Your task to perform on an android device: toggle improve location accuracy Image 0: 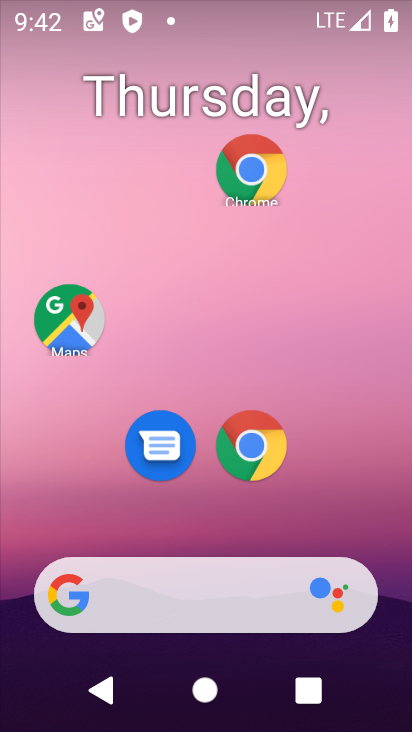
Step 0: drag from (220, 569) to (14, 179)
Your task to perform on an android device: toggle improve location accuracy Image 1: 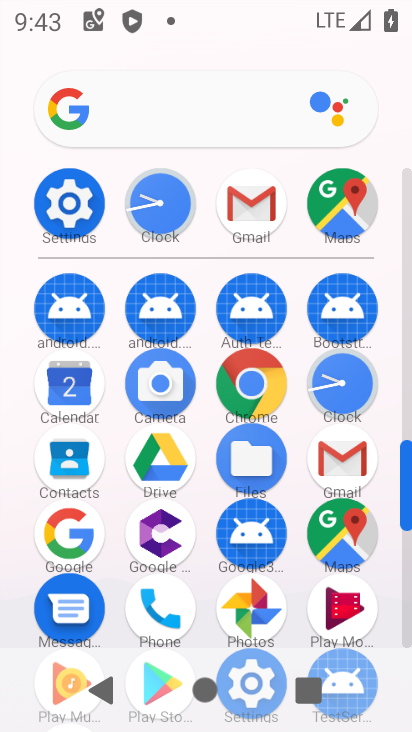
Step 1: click (243, 658)
Your task to perform on an android device: toggle improve location accuracy Image 2: 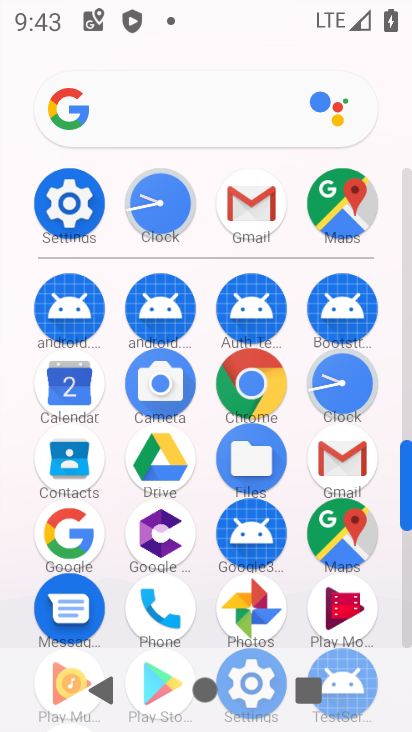
Step 2: click (67, 207)
Your task to perform on an android device: toggle improve location accuracy Image 3: 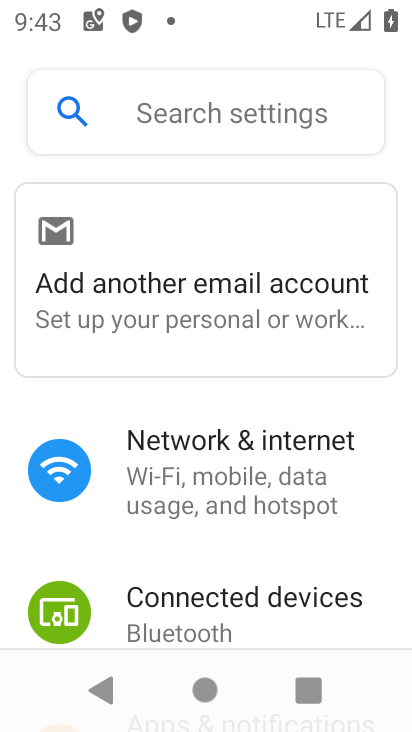
Step 3: drag from (157, 601) to (185, 11)
Your task to perform on an android device: toggle improve location accuracy Image 4: 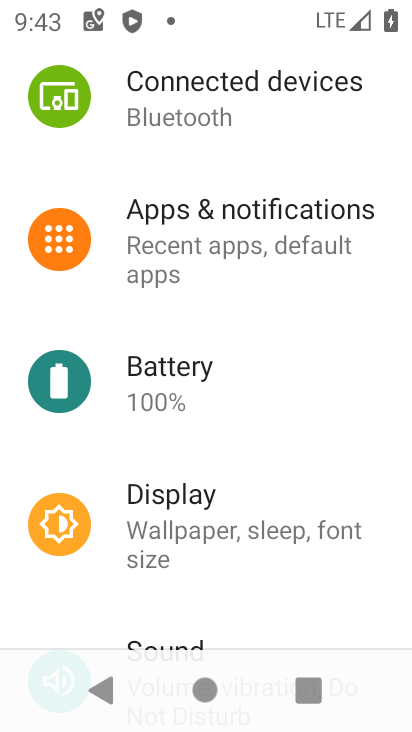
Step 4: drag from (268, 549) to (242, 107)
Your task to perform on an android device: toggle improve location accuracy Image 5: 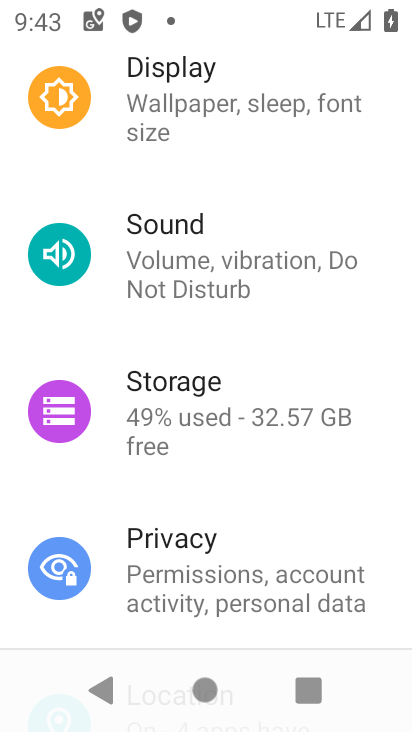
Step 5: drag from (212, 503) to (196, 48)
Your task to perform on an android device: toggle improve location accuracy Image 6: 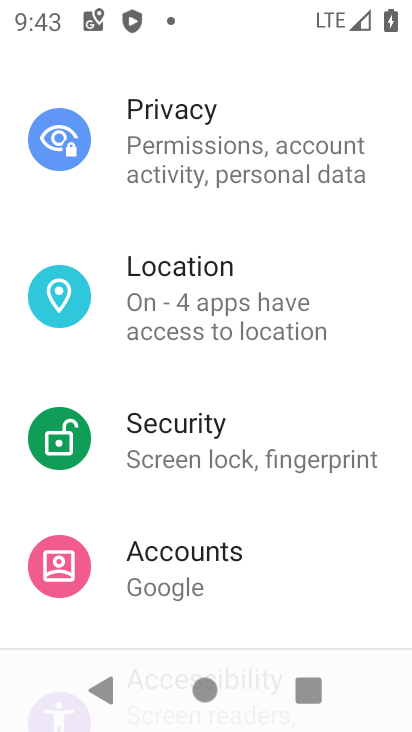
Step 6: click (207, 309)
Your task to perform on an android device: toggle improve location accuracy Image 7: 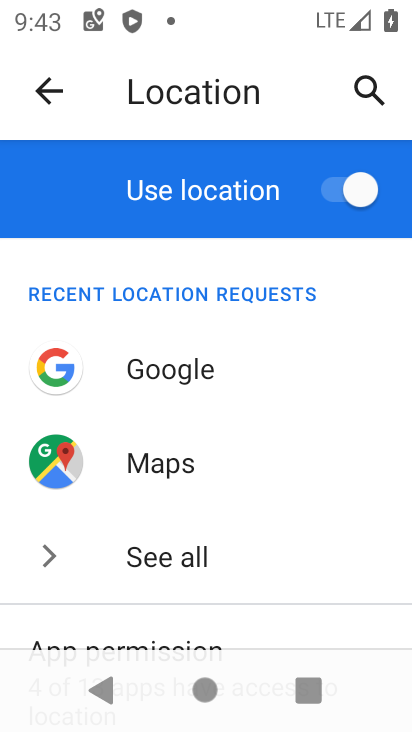
Step 7: drag from (276, 563) to (254, 209)
Your task to perform on an android device: toggle improve location accuracy Image 8: 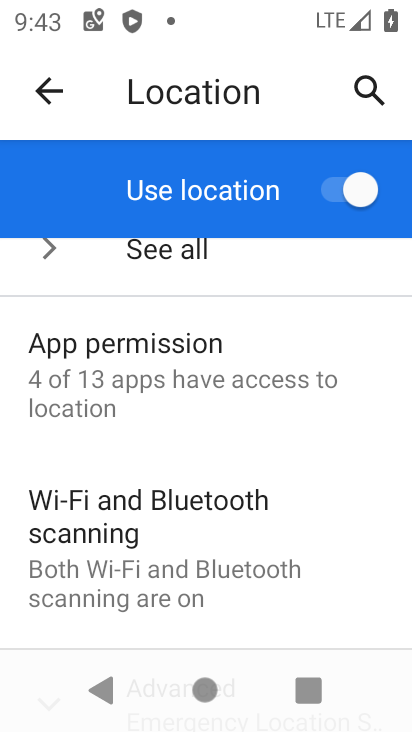
Step 8: drag from (197, 530) to (181, 175)
Your task to perform on an android device: toggle improve location accuracy Image 9: 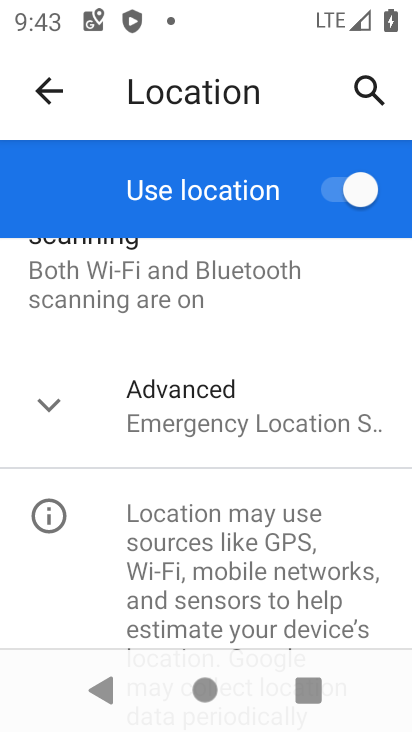
Step 9: click (190, 428)
Your task to perform on an android device: toggle improve location accuracy Image 10: 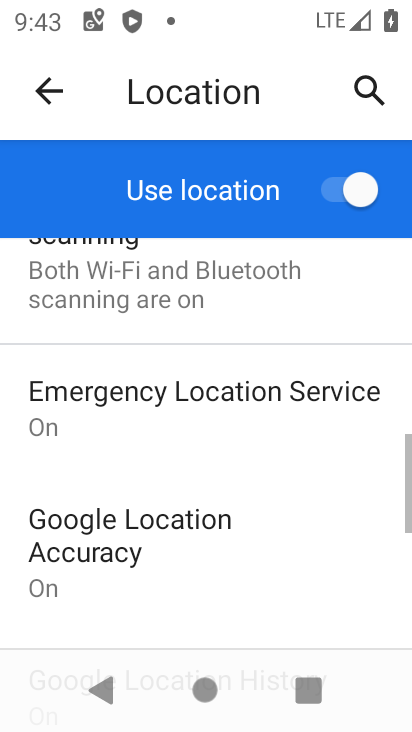
Step 10: click (212, 540)
Your task to perform on an android device: toggle improve location accuracy Image 11: 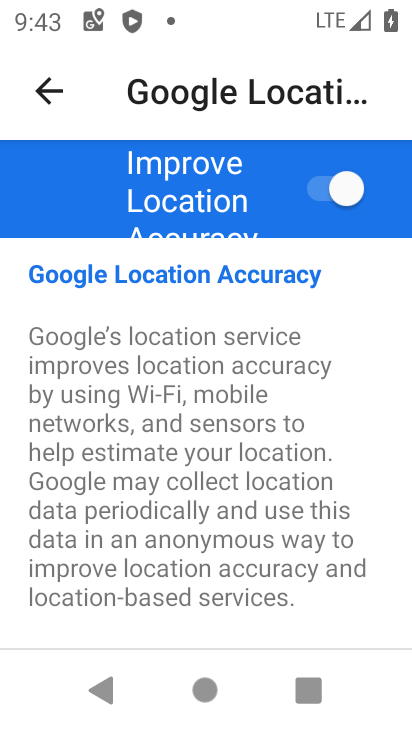
Step 11: click (330, 186)
Your task to perform on an android device: toggle improve location accuracy Image 12: 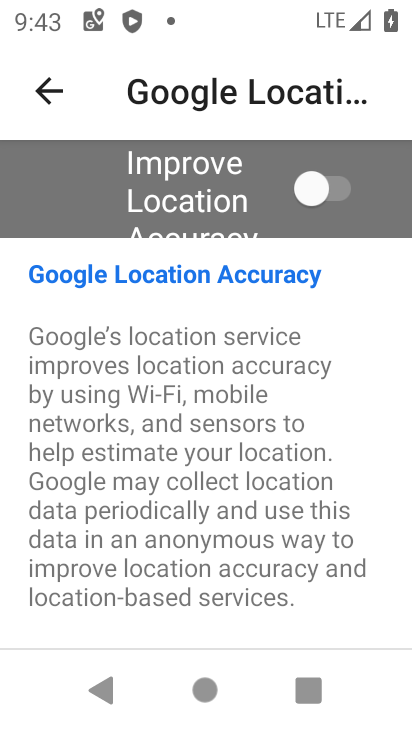
Step 12: task complete